Your task to perform on an android device: add a contact in the contacts app Image 0: 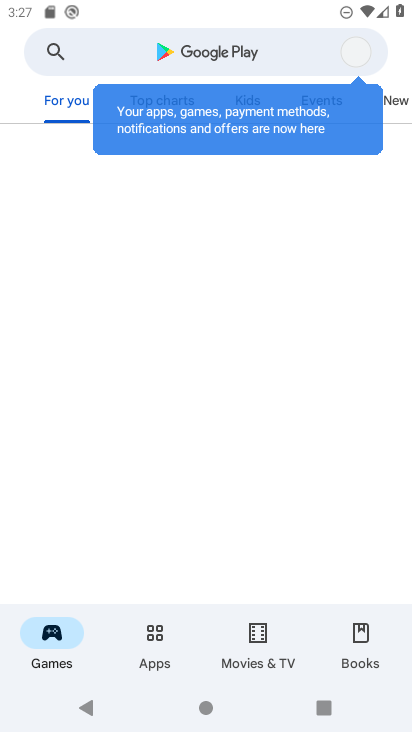
Step 0: press home button
Your task to perform on an android device: add a contact in the contacts app Image 1: 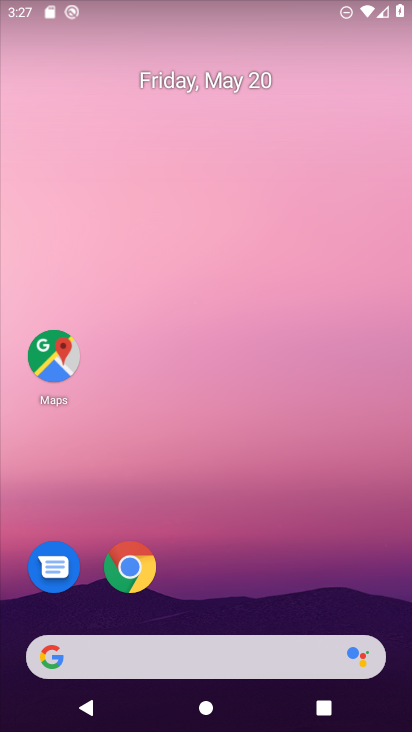
Step 1: drag from (242, 718) to (242, 188)
Your task to perform on an android device: add a contact in the contacts app Image 2: 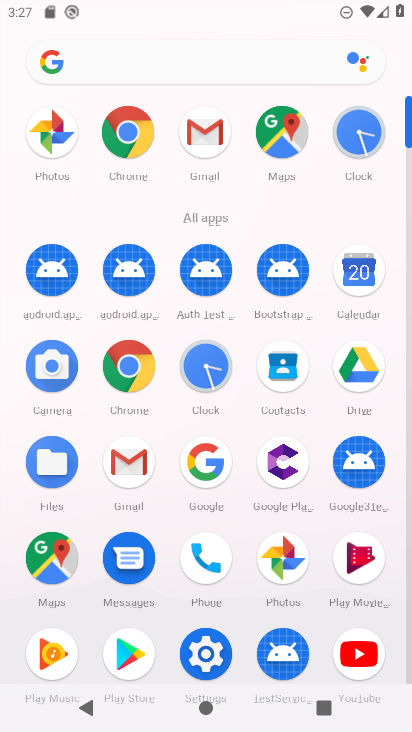
Step 2: click (291, 368)
Your task to perform on an android device: add a contact in the contacts app Image 3: 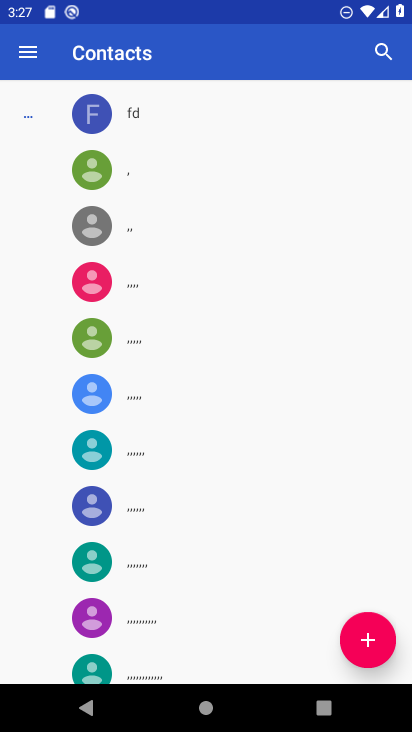
Step 3: click (368, 634)
Your task to perform on an android device: add a contact in the contacts app Image 4: 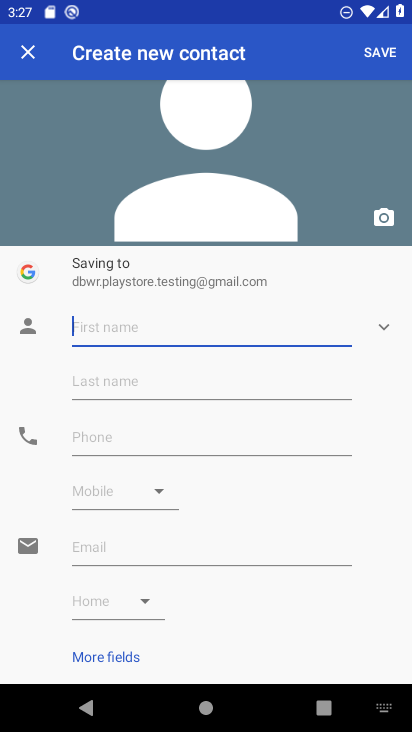
Step 4: type ""
Your task to perform on an android device: add a contact in the contacts app Image 5: 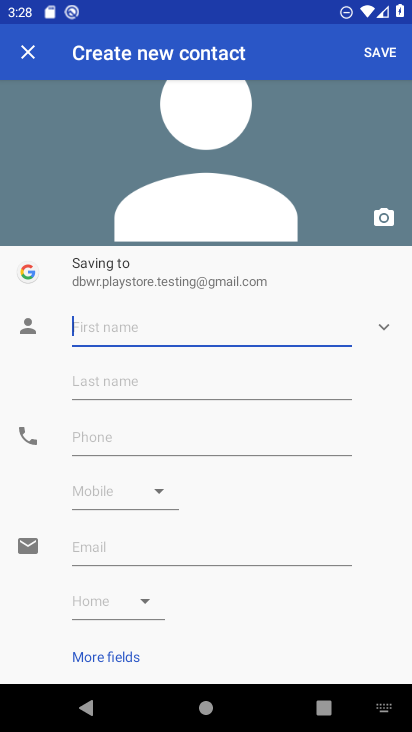
Step 5: type "beens"
Your task to perform on an android device: add a contact in the contacts app Image 6: 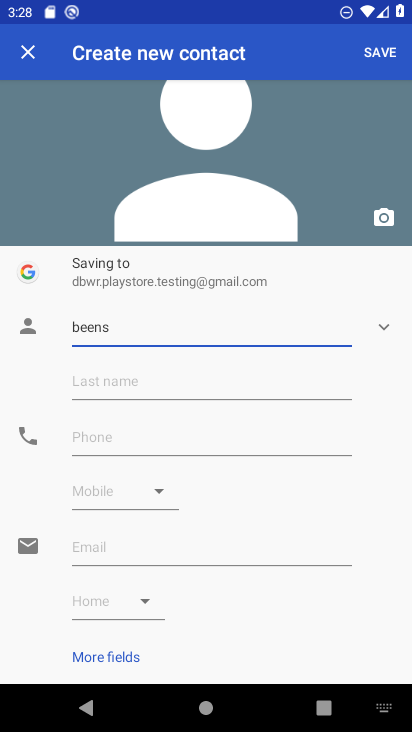
Step 6: click (139, 437)
Your task to perform on an android device: add a contact in the contacts app Image 7: 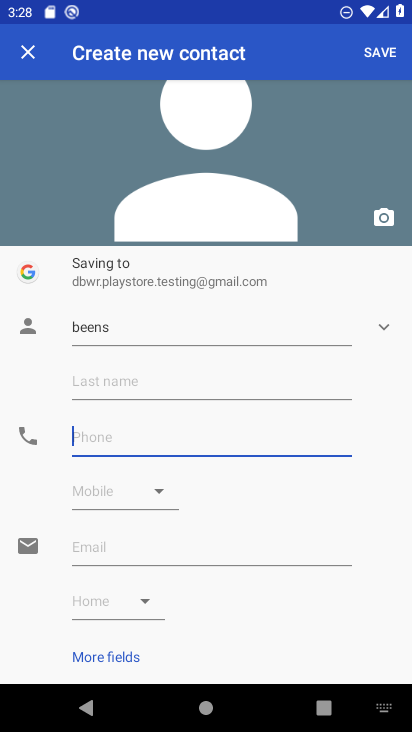
Step 7: type "88888"
Your task to perform on an android device: add a contact in the contacts app Image 8: 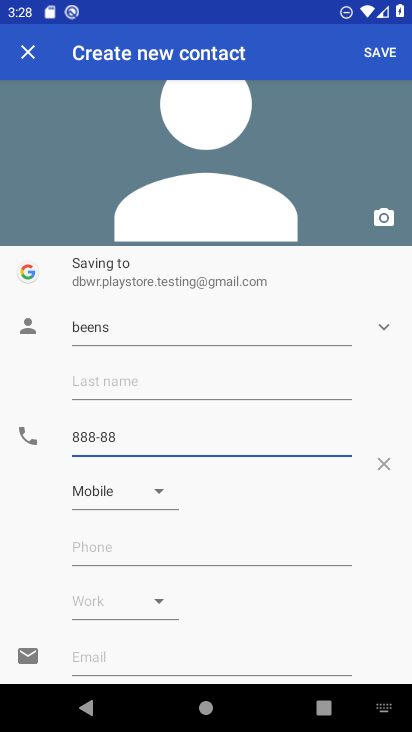
Step 8: click (386, 53)
Your task to perform on an android device: add a contact in the contacts app Image 9: 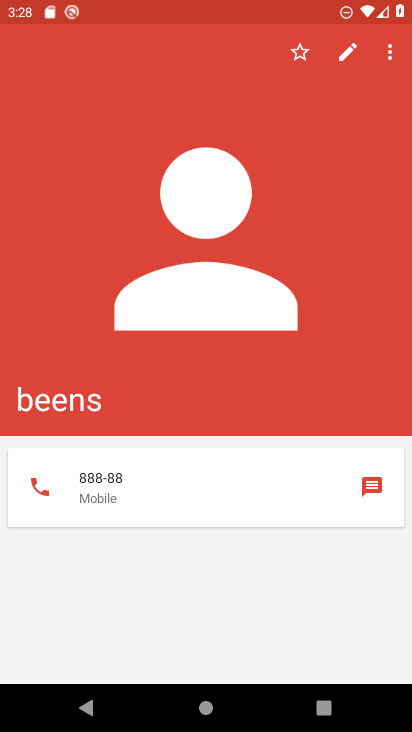
Step 9: task complete